Your task to perform on an android device: show emergency info Image 0: 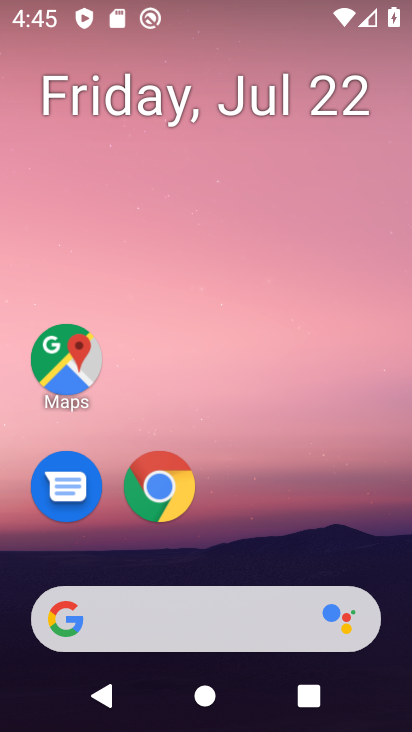
Step 0: drag from (366, 575) to (246, 180)
Your task to perform on an android device: show emergency info Image 1: 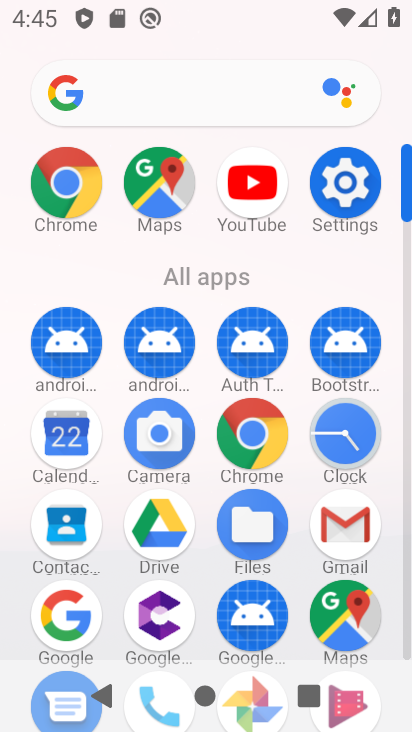
Step 1: click (330, 212)
Your task to perform on an android device: show emergency info Image 2: 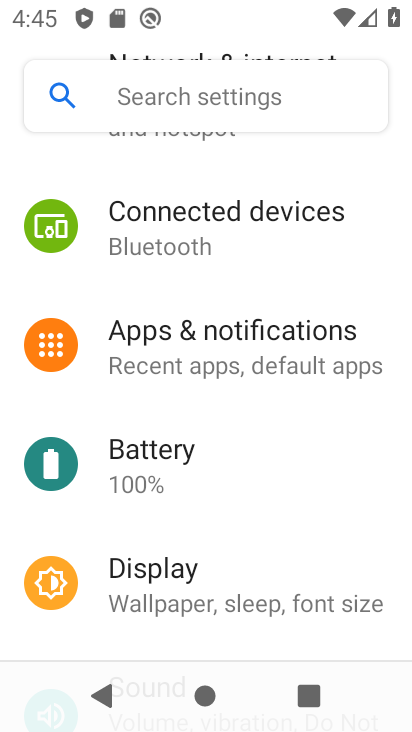
Step 2: drag from (293, 592) to (276, 262)
Your task to perform on an android device: show emergency info Image 3: 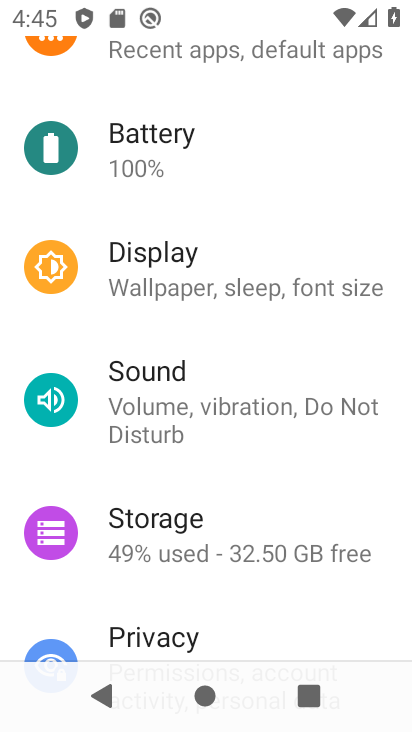
Step 3: drag from (316, 614) to (251, 192)
Your task to perform on an android device: show emergency info Image 4: 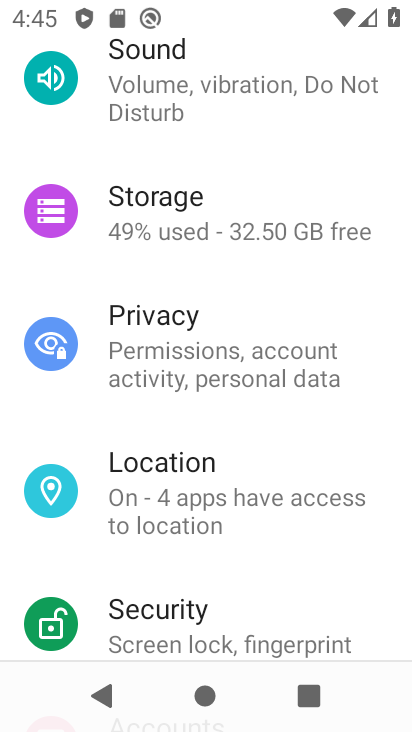
Step 4: drag from (278, 561) to (240, 250)
Your task to perform on an android device: show emergency info Image 5: 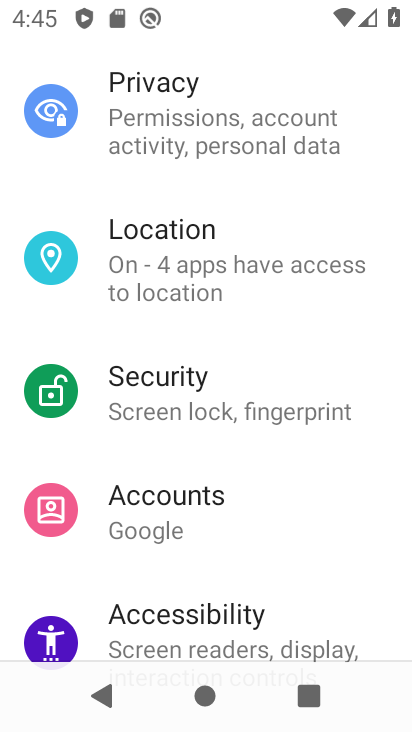
Step 5: drag from (263, 568) to (250, 221)
Your task to perform on an android device: show emergency info Image 6: 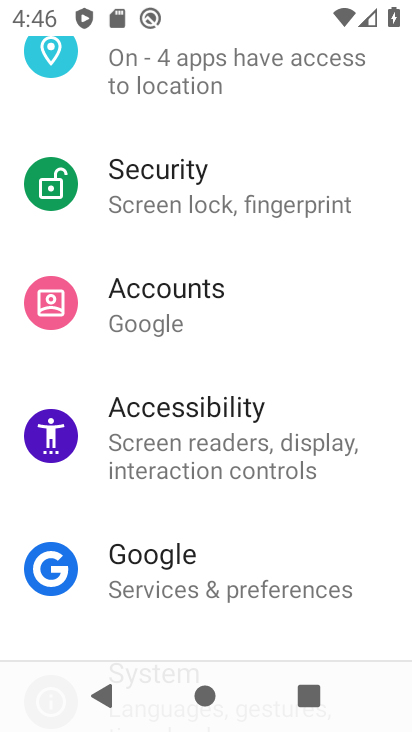
Step 6: drag from (260, 632) to (250, 297)
Your task to perform on an android device: show emergency info Image 7: 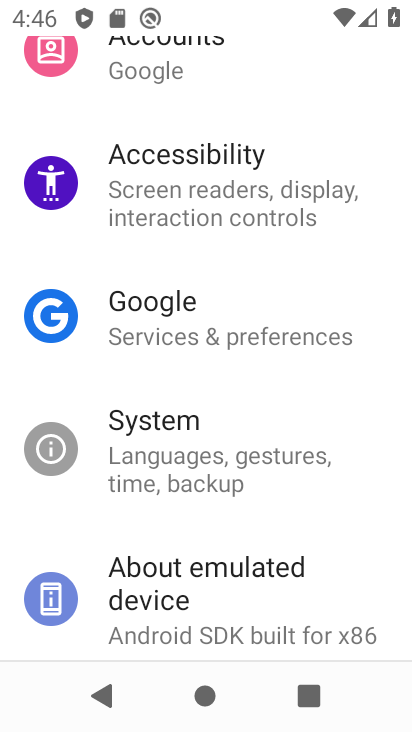
Step 7: click (270, 624)
Your task to perform on an android device: show emergency info Image 8: 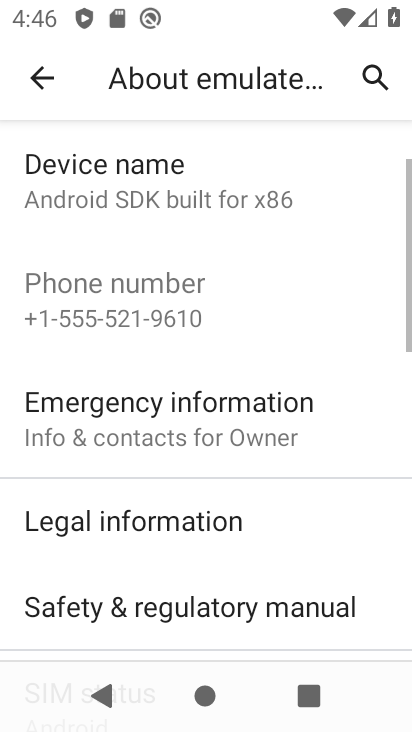
Step 8: click (291, 457)
Your task to perform on an android device: show emergency info Image 9: 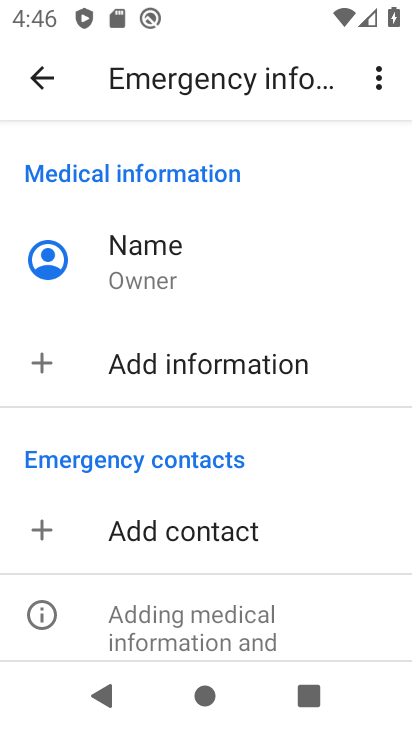
Step 9: task complete